Your task to perform on an android device: turn on translation in the chrome app Image 0: 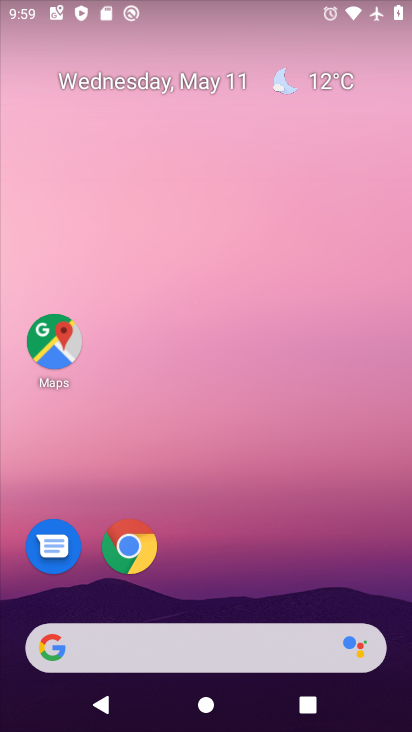
Step 0: click (126, 542)
Your task to perform on an android device: turn on translation in the chrome app Image 1: 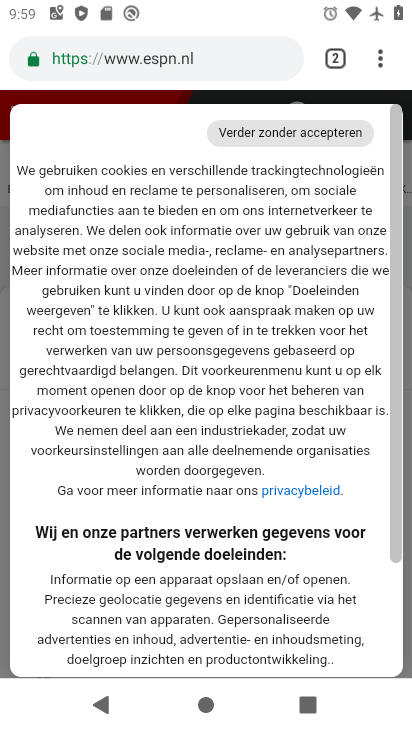
Step 1: click (378, 60)
Your task to perform on an android device: turn on translation in the chrome app Image 2: 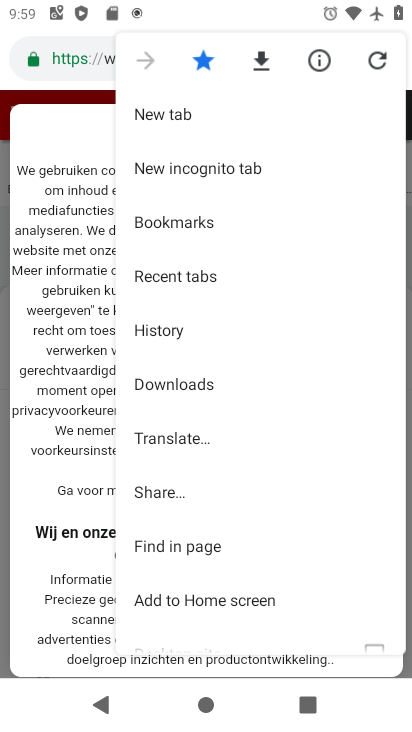
Step 2: drag from (284, 519) to (250, 268)
Your task to perform on an android device: turn on translation in the chrome app Image 3: 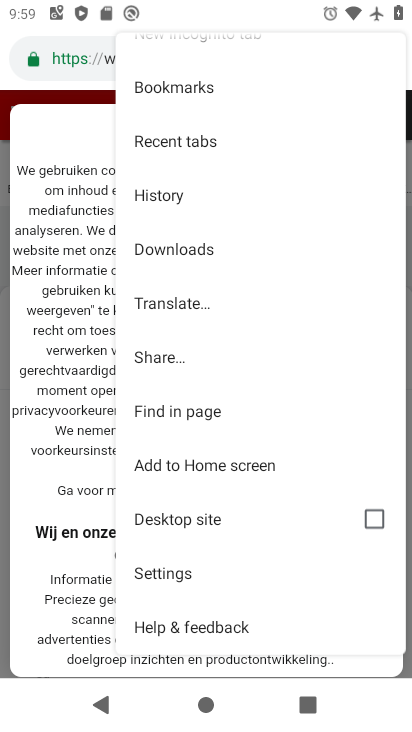
Step 3: click (175, 566)
Your task to perform on an android device: turn on translation in the chrome app Image 4: 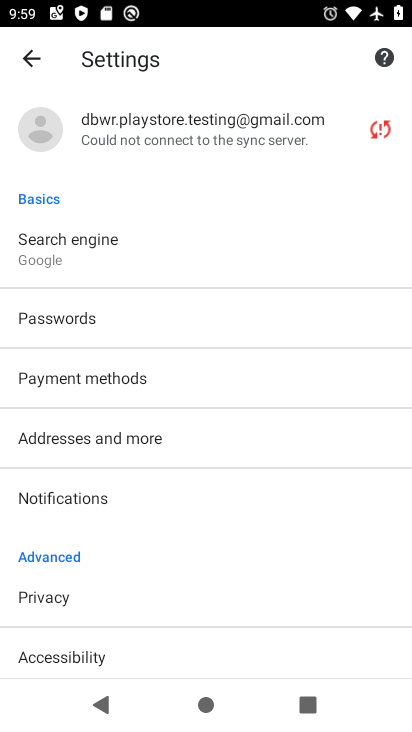
Step 4: drag from (179, 636) to (207, 353)
Your task to perform on an android device: turn on translation in the chrome app Image 5: 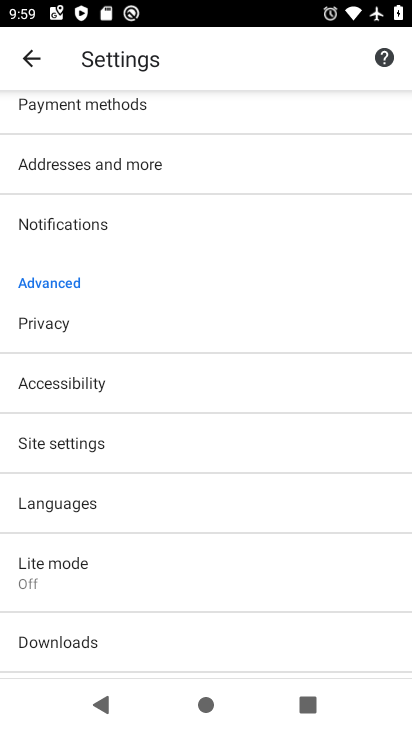
Step 5: click (56, 505)
Your task to perform on an android device: turn on translation in the chrome app Image 6: 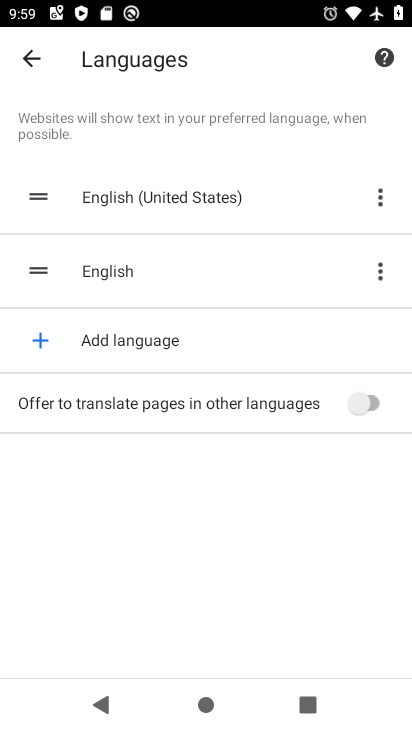
Step 6: click (370, 398)
Your task to perform on an android device: turn on translation in the chrome app Image 7: 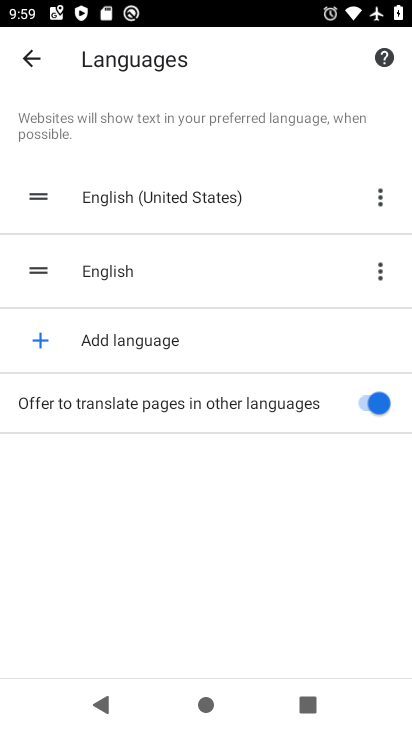
Step 7: task complete